Your task to perform on an android device: Open calendar and show me the second week of next month Image 0: 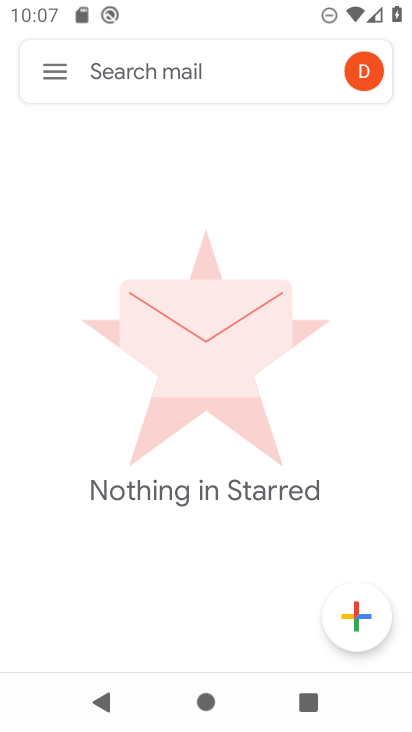
Step 0: press back button
Your task to perform on an android device: Open calendar and show me the second week of next month Image 1: 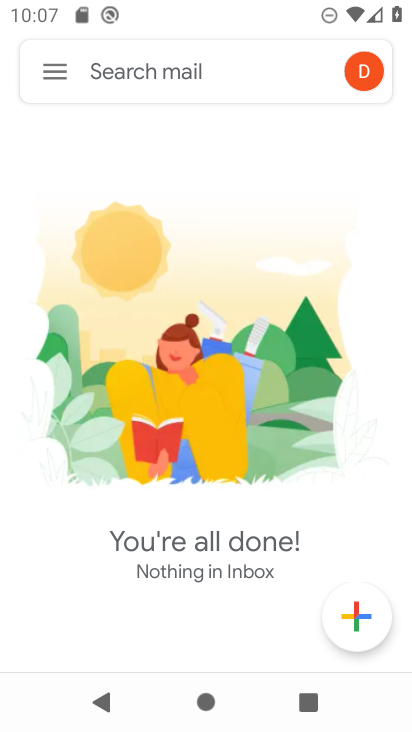
Step 1: press back button
Your task to perform on an android device: Open calendar and show me the second week of next month Image 2: 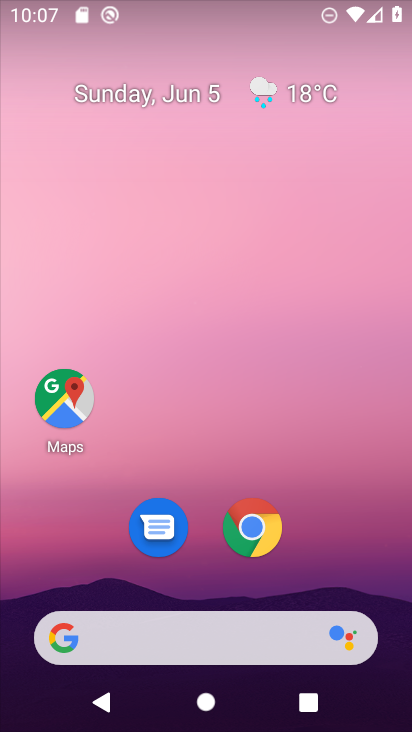
Step 2: drag from (235, 449) to (273, 63)
Your task to perform on an android device: Open calendar and show me the second week of next month Image 3: 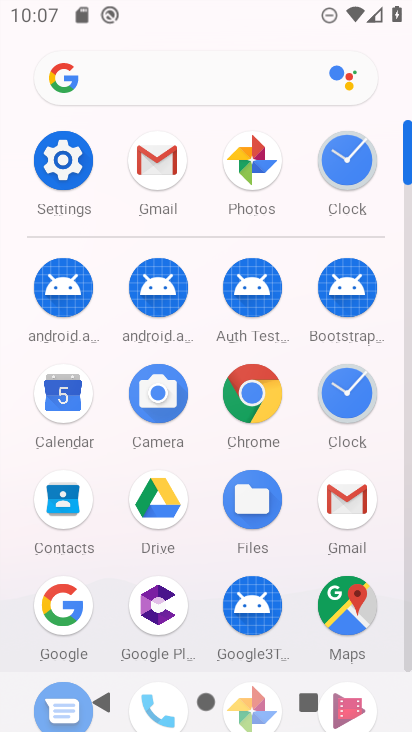
Step 3: click (58, 420)
Your task to perform on an android device: Open calendar and show me the second week of next month Image 4: 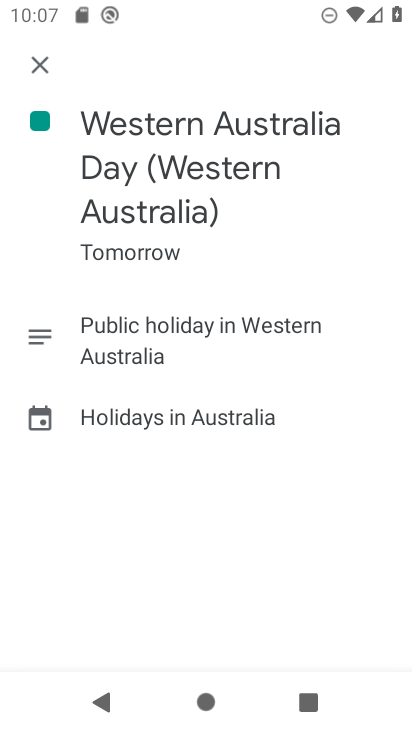
Step 4: click (52, 63)
Your task to perform on an android device: Open calendar and show me the second week of next month Image 5: 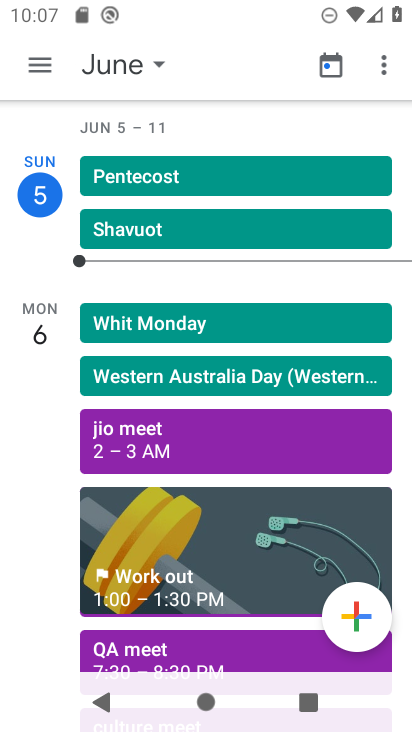
Step 5: click (108, 78)
Your task to perform on an android device: Open calendar and show me the second week of next month Image 6: 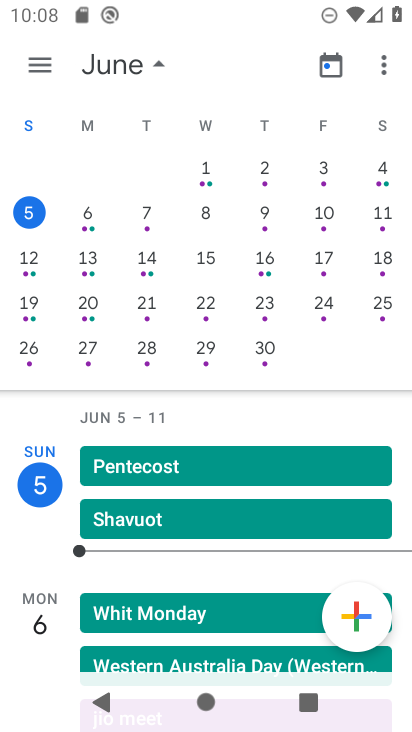
Step 6: drag from (375, 241) to (88, 221)
Your task to perform on an android device: Open calendar and show me the second week of next month Image 7: 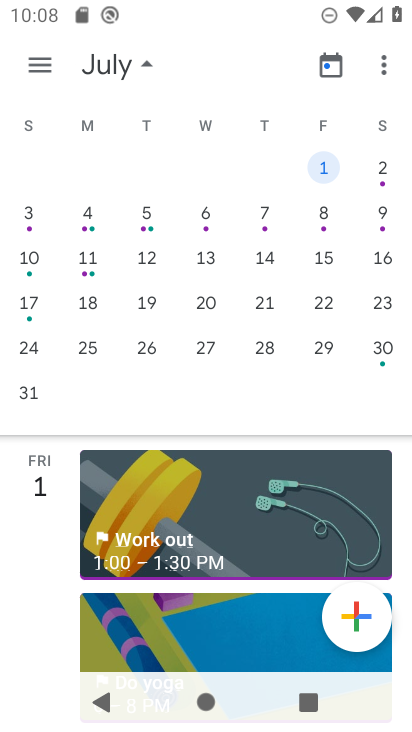
Step 7: click (85, 257)
Your task to perform on an android device: Open calendar and show me the second week of next month Image 8: 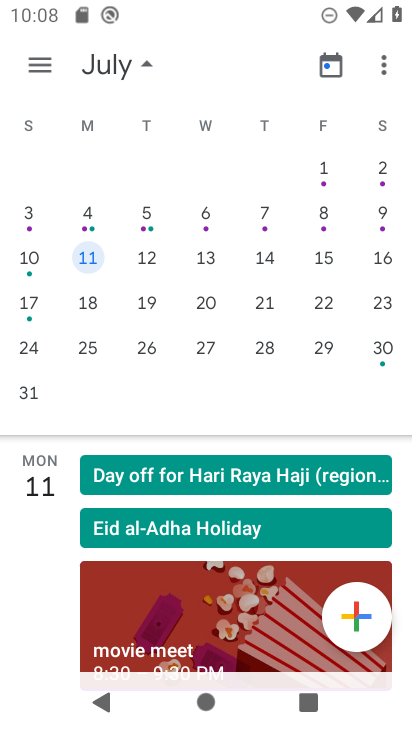
Step 8: task complete